Your task to perform on an android device: What's on my calendar today? Image 0: 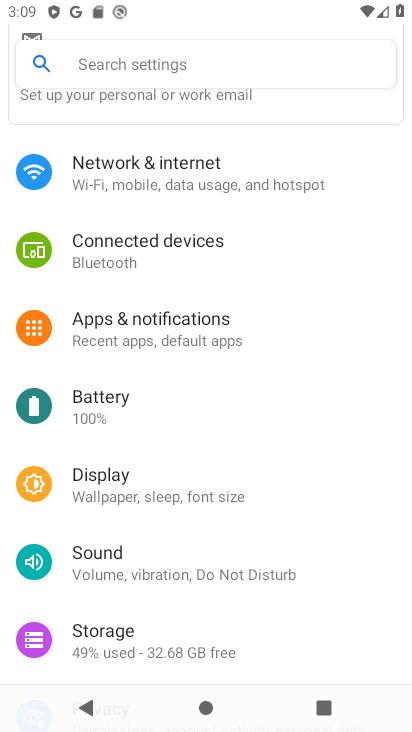
Step 0: press home button
Your task to perform on an android device: What's on my calendar today? Image 1: 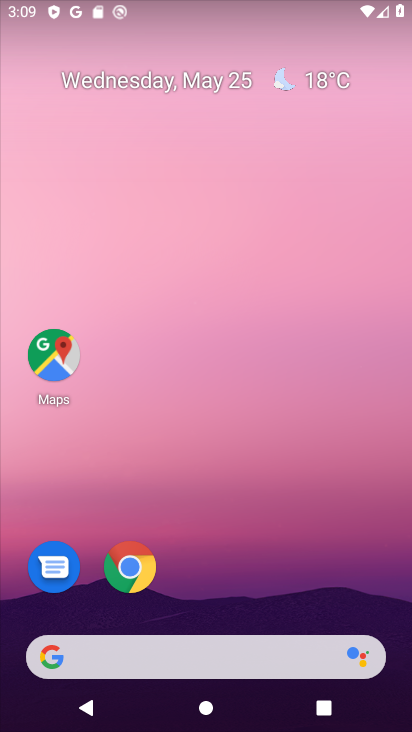
Step 1: drag from (345, 589) to (340, 109)
Your task to perform on an android device: What's on my calendar today? Image 2: 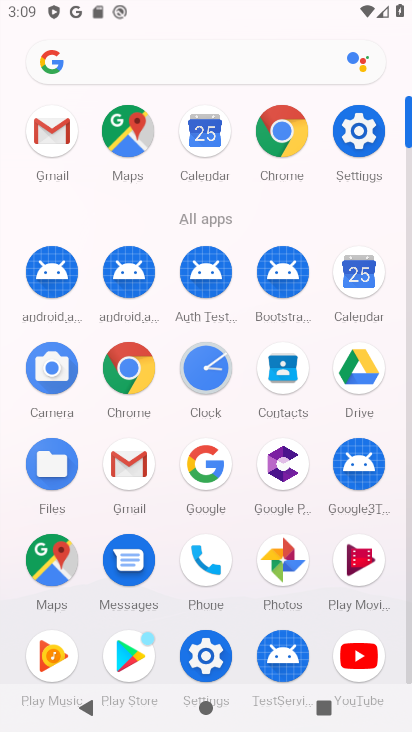
Step 2: click (355, 286)
Your task to perform on an android device: What's on my calendar today? Image 3: 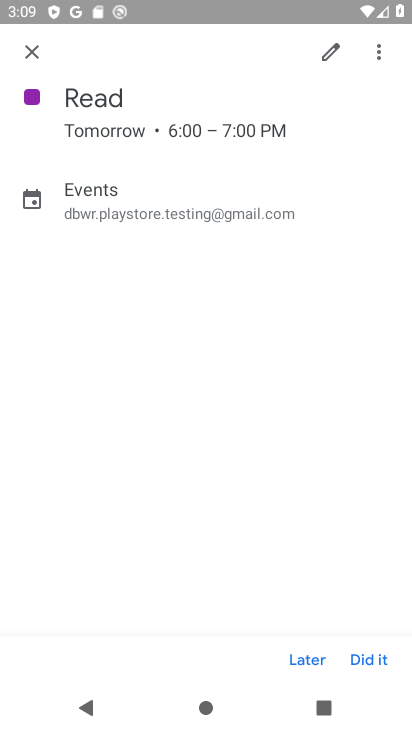
Step 3: click (26, 49)
Your task to perform on an android device: What's on my calendar today? Image 4: 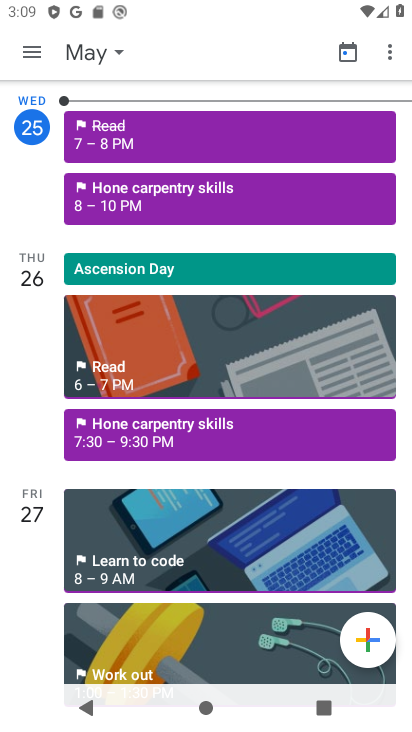
Step 4: click (152, 135)
Your task to perform on an android device: What's on my calendar today? Image 5: 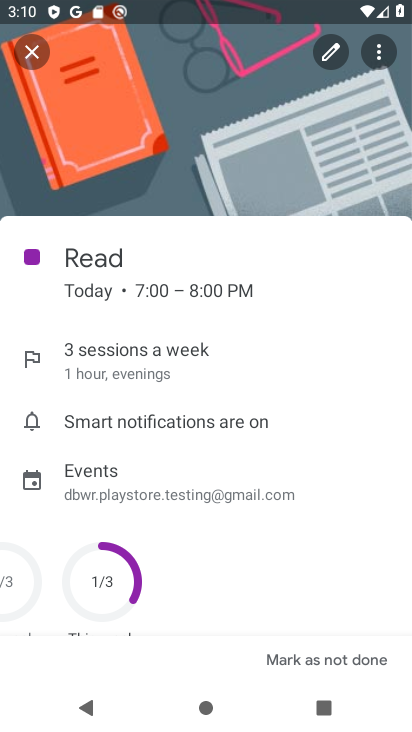
Step 5: task complete